Your task to perform on an android device: Search for pizza restaurants on Maps Image 0: 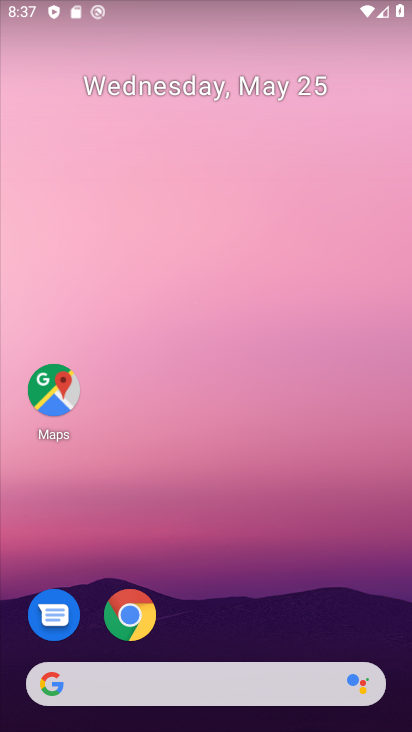
Step 0: click (54, 394)
Your task to perform on an android device: Search for pizza restaurants on Maps Image 1: 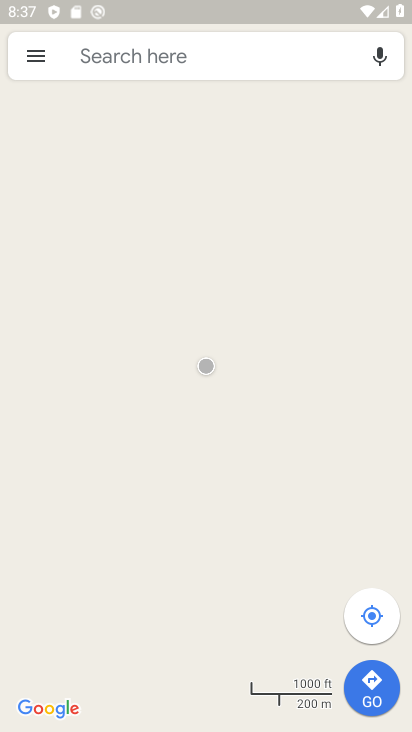
Step 1: click (218, 64)
Your task to perform on an android device: Search for pizza restaurants on Maps Image 2: 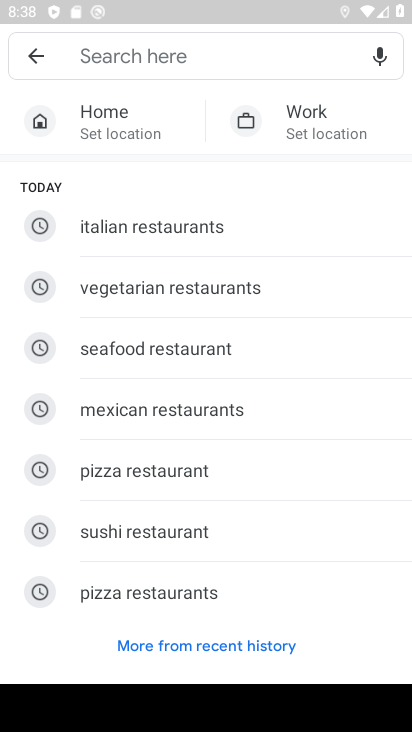
Step 2: type "pizz"
Your task to perform on an android device: Search for pizza restaurants on Maps Image 3: 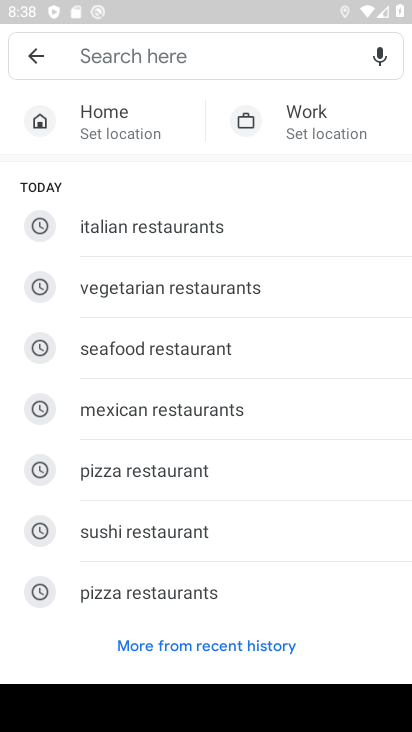
Step 3: click (120, 462)
Your task to perform on an android device: Search for pizza restaurants on Maps Image 4: 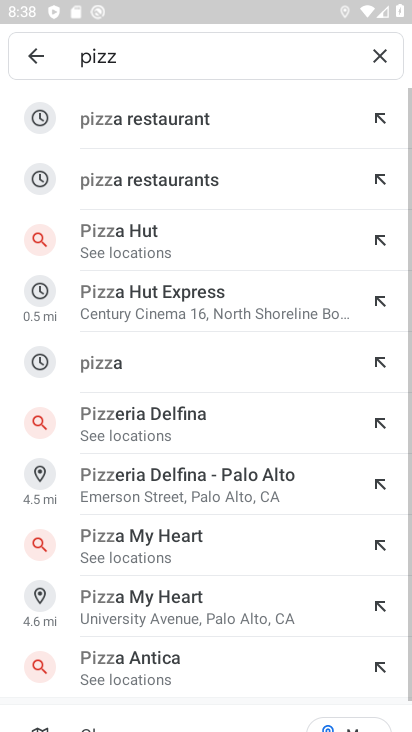
Step 4: click (160, 105)
Your task to perform on an android device: Search for pizza restaurants on Maps Image 5: 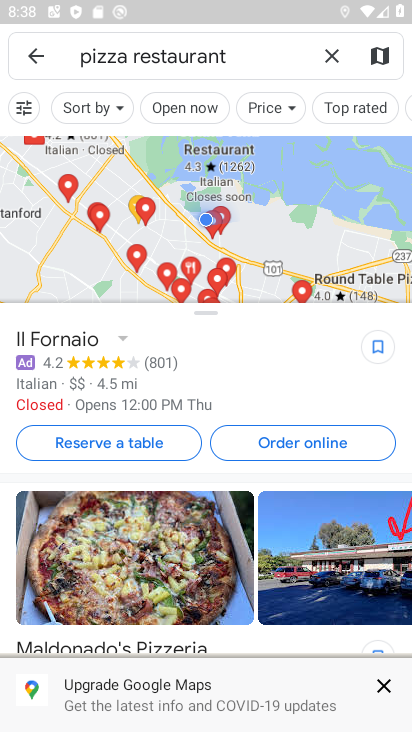
Step 5: task complete